Your task to perform on an android device: turn off notifications settings in the gmail app Image 0: 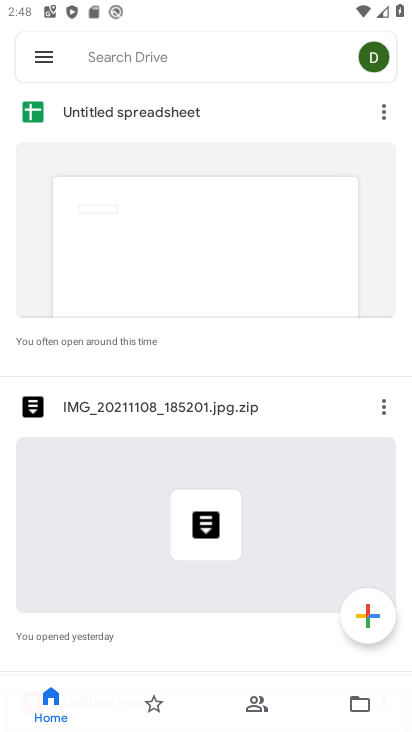
Step 0: press home button
Your task to perform on an android device: turn off notifications settings in the gmail app Image 1: 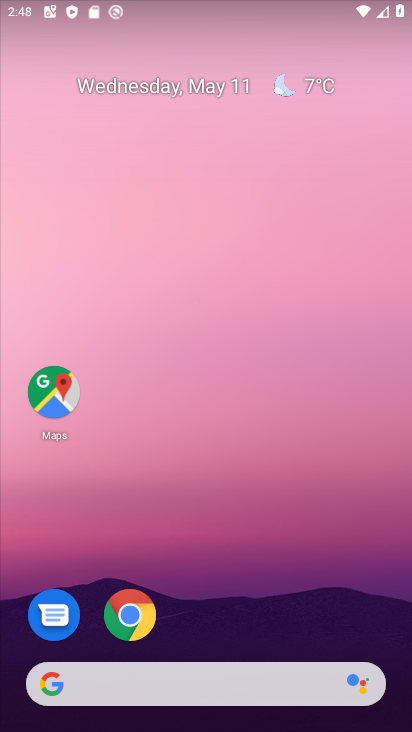
Step 1: drag from (291, 606) to (248, 121)
Your task to perform on an android device: turn off notifications settings in the gmail app Image 2: 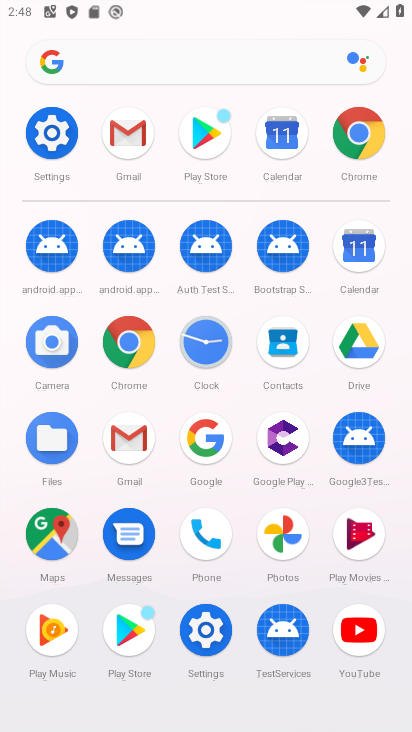
Step 2: click (128, 145)
Your task to perform on an android device: turn off notifications settings in the gmail app Image 3: 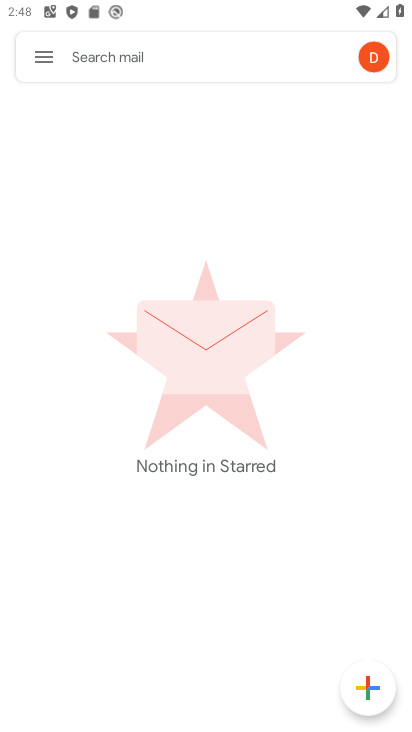
Step 3: click (47, 67)
Your task to perform on an android device: turn off notifications settings in the gmail app Image 4: 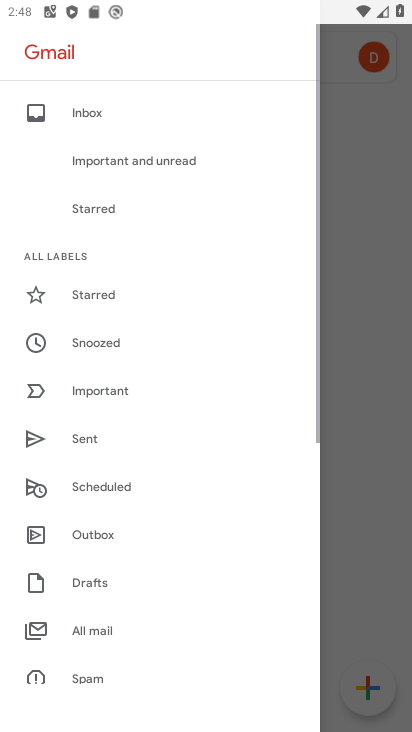
Step 4: drag from (146, 642) to (210, 195)
Your task to perform on an android device: turn off notifications settings in the gmail app Image 5: 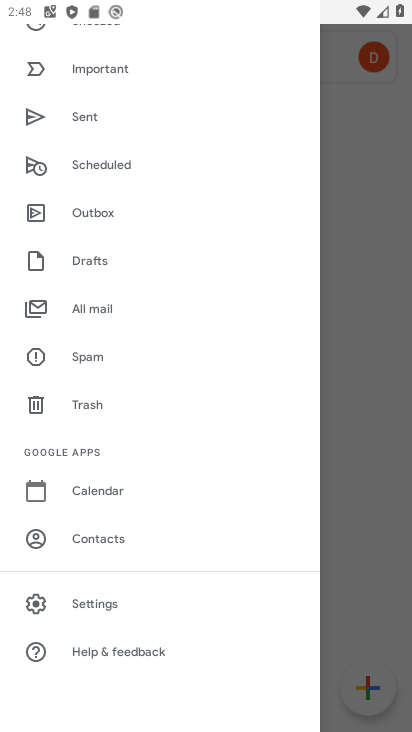
Step 5: click (96, 589)
Your task to perform on an android device: turn off notifications settings in the gmail app Image 6: 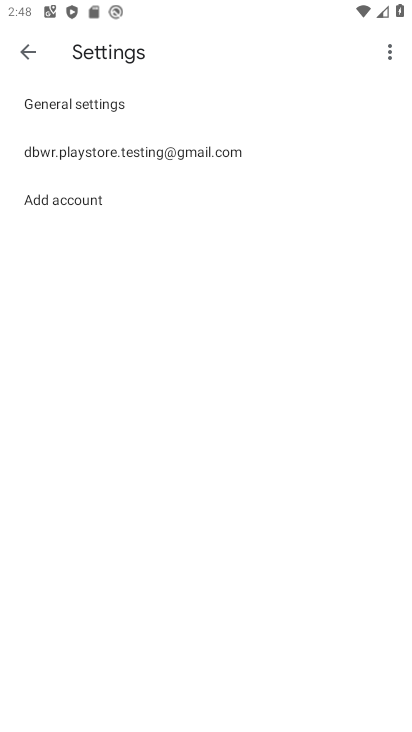
Step 6: click (210, 148)
Your task to perform on an android device: turn off notifications settings in the gmail app Image 7: 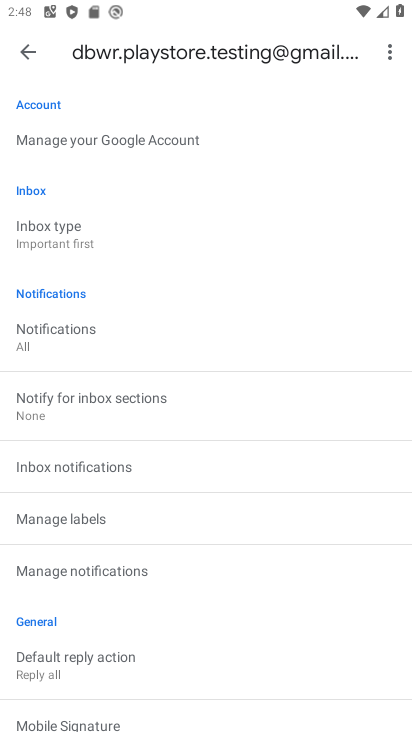
Step 7: drag from (221, 599) to (232, 131)
Your task to perform on an android device: turn off notifications settings in the gmail app Image 8: 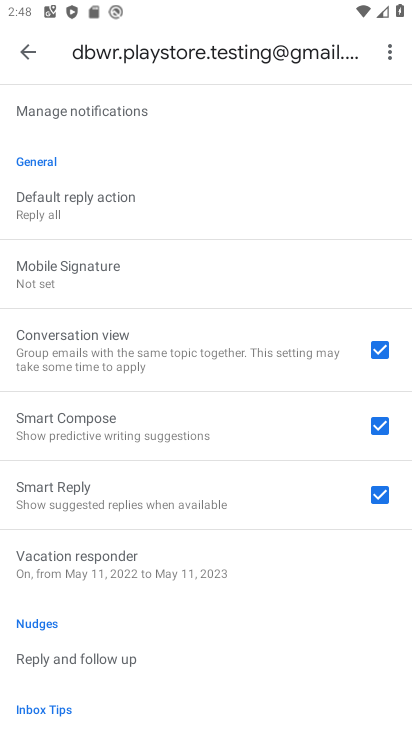
Step 8: drag from (191, 626) to (298, 687)
Your task to perform on an android device: turn off notifications settings in the gmail app Image 9: 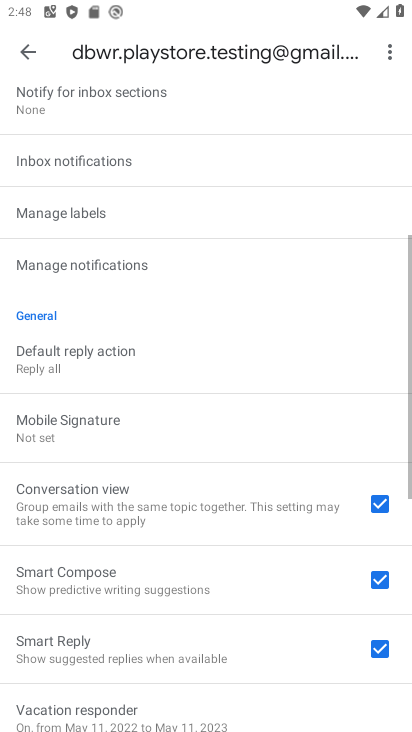
Step 9: drag from (265, 329) to (279, 629)
Your task to perform on an android device: turn off notifications settings in the gmail app Image 10: 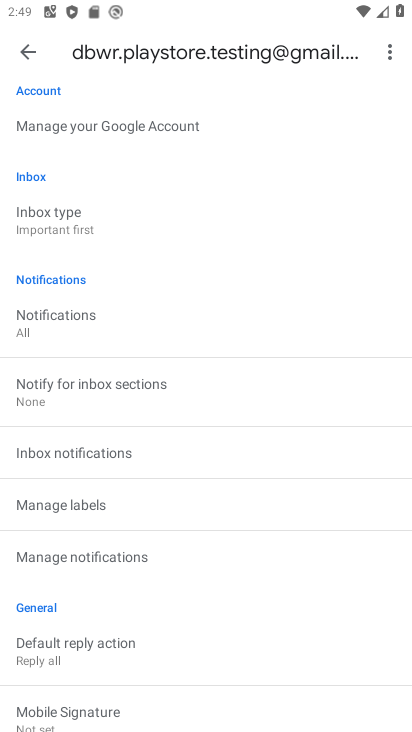
Step 10: click (91, 554)
Your task to perform on an android device: turn off notifications settings in the gmail app Image 11: 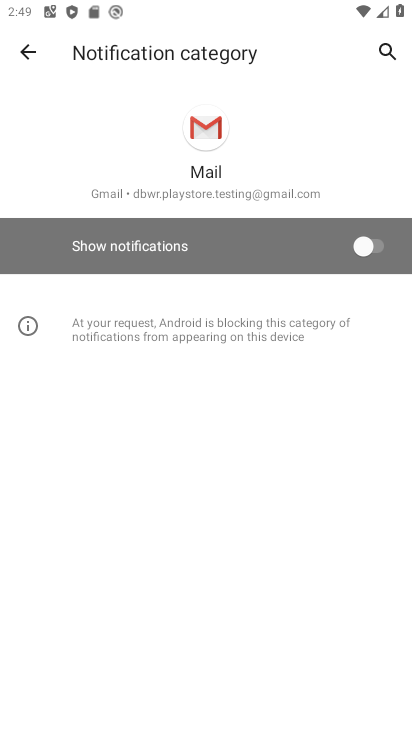
Step 11: task complete